Your task to perform on an android device: Is it going to rain today? Image 0: 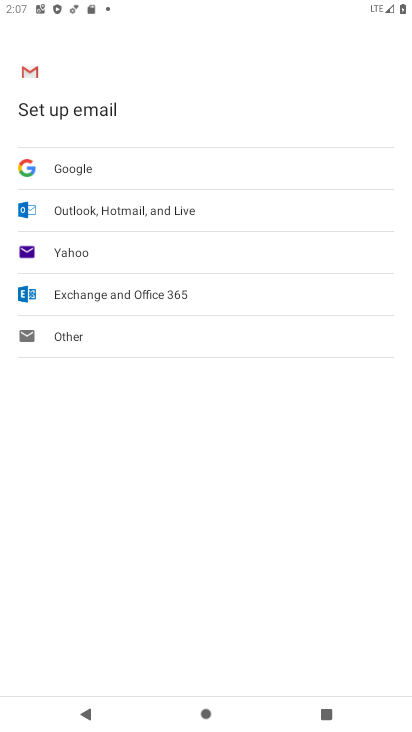
Step 0: press home button
Your task to perform on an android device: Is it going to rain today? Image 1: 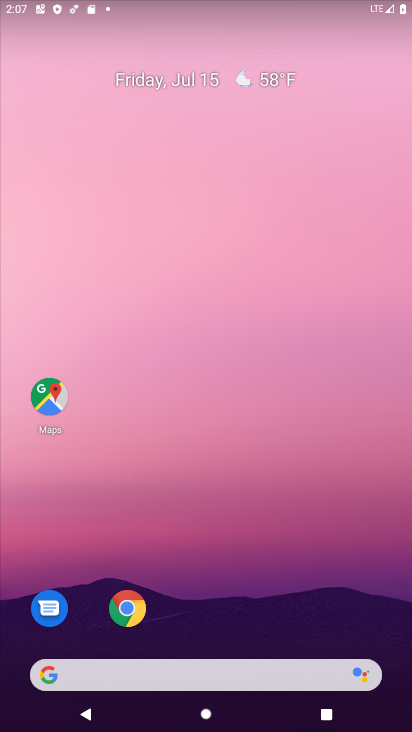
Step 1: click (136, 610)
Your task to perform on an android device: Is it going to rain today? Image 2: 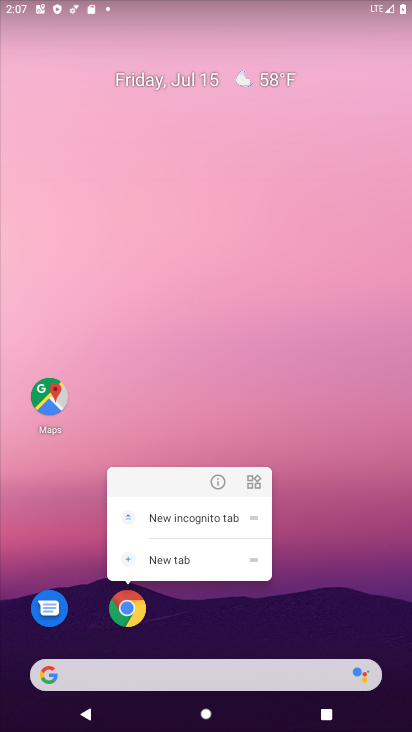
Step 2: click (135, 610)
Your task to perform on an android device: Is it going to rain today? Image 3: 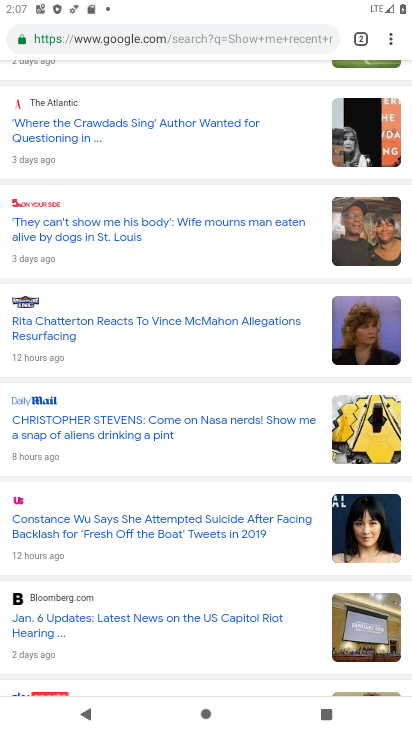
Step 3: click (171, 32)
Your task to perform on an android device: Is it going to rain today? Image 4: 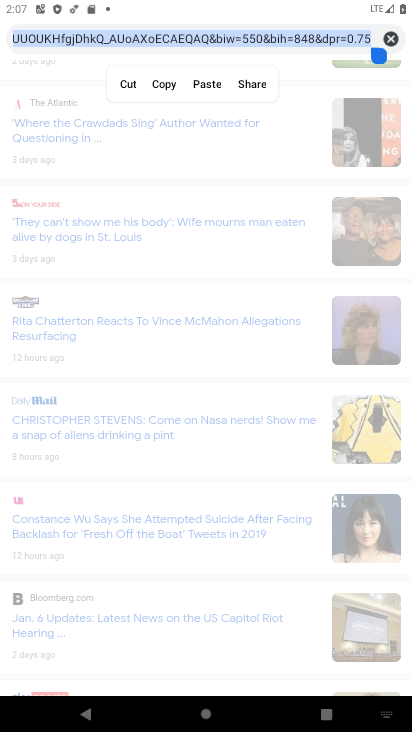
Step 4: click (382, 35)
Your task to perform on an android device: Is it going to rain today? Image 5: 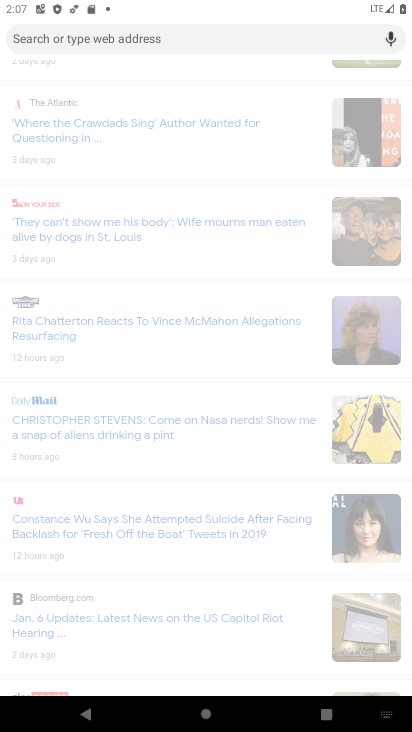
Step 5: type "Is it going to rain today?"
Your task to perform on an android device: Is it going to rain today? Image 6: 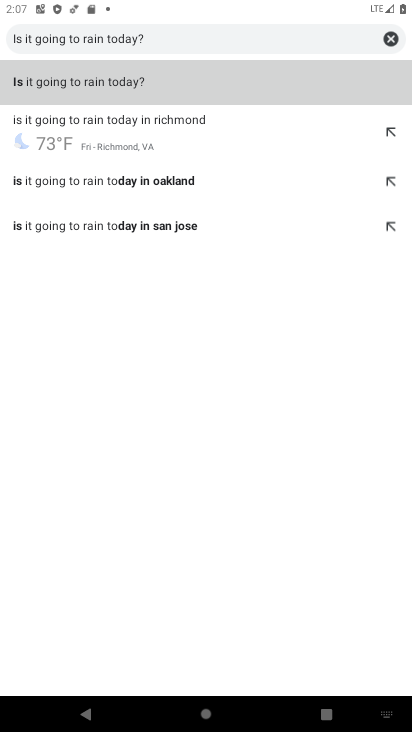
Step 6: click (60, 80)
Your task to perform on an android device: Is it going to rain today? Image 7: 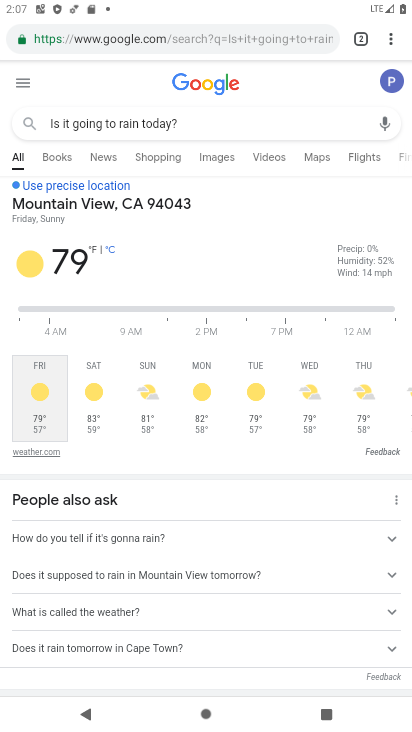
Step 7: task complete